Your task to perform on an android device: turn on notifications settings in the gmail app Image 0: 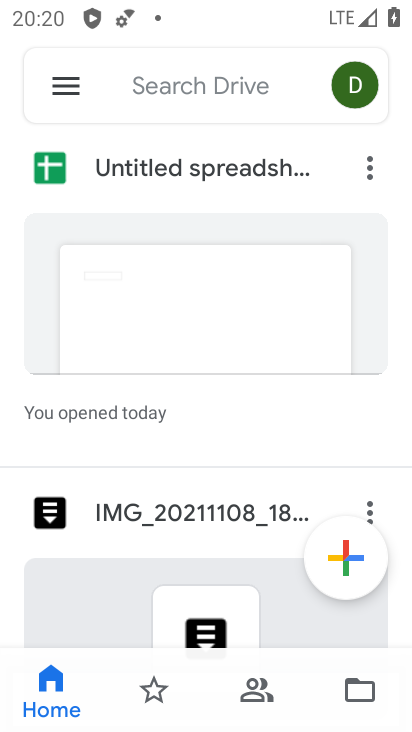
Step 0: drag from (201, 602) to (218, 251)
Your task to perform on an android device: turn on notifications settings in the gmail app Image 1: 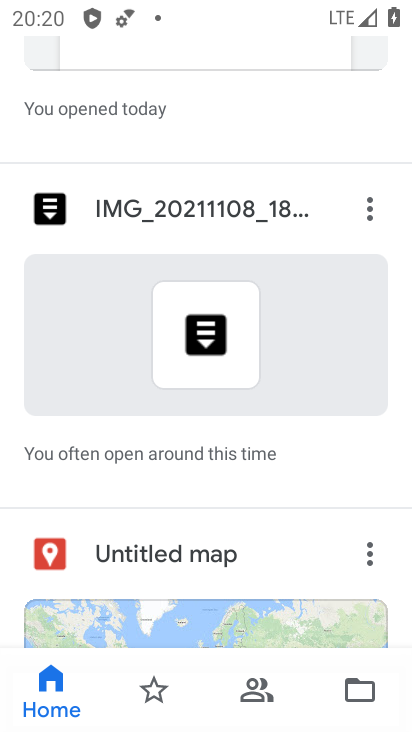
Step 1: press home button
Your task to perform on an android device: turn on notifications settings in the gmail app Image 2: 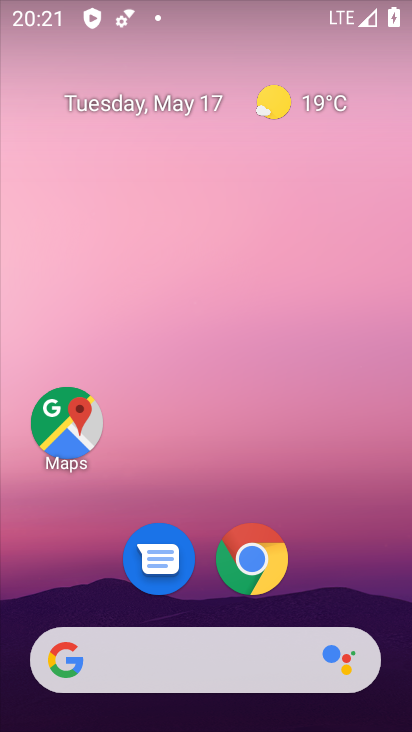
Step 2: drag from (228, 589) to (254, 315)
Your task to perform on an android device: turn on notifications settings in the gmail app Image 3: 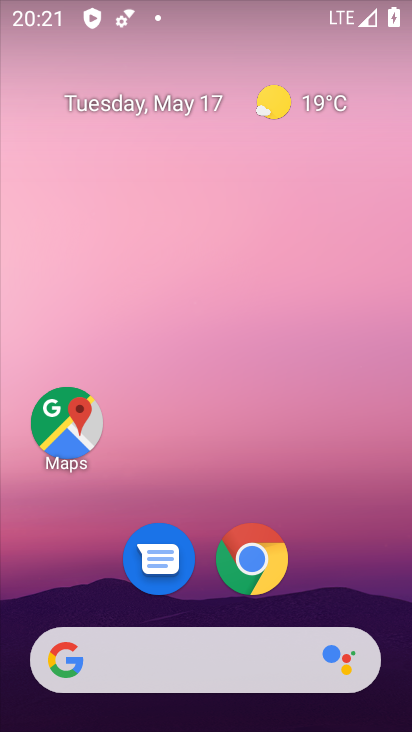
Step 3: drag from (214, 586) to (186, 283)
Your task to perform on an android device: turn on notifications settings in the gmail app Image 4: 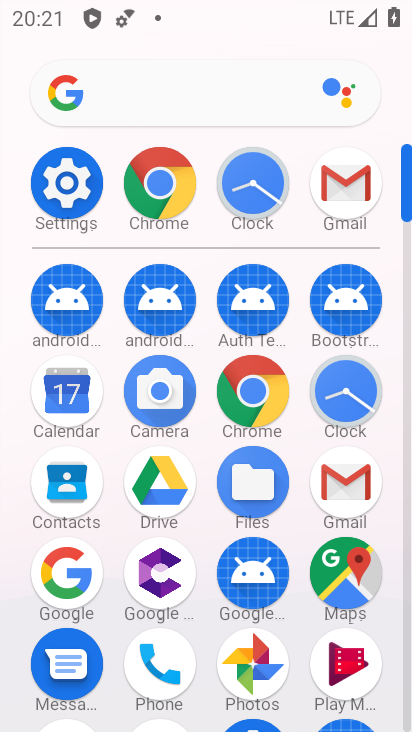
Step 4: click (372, 487)
Your task to perform on an android device: turn on notifications settings in the gmail app Image 5: 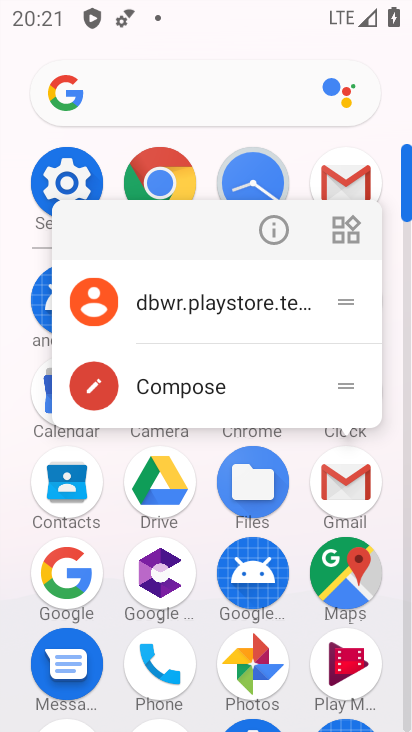
Step 5: click (221, 291)
Your task to perform on an android device: turn on notifications settings in the gmail app Image 6: 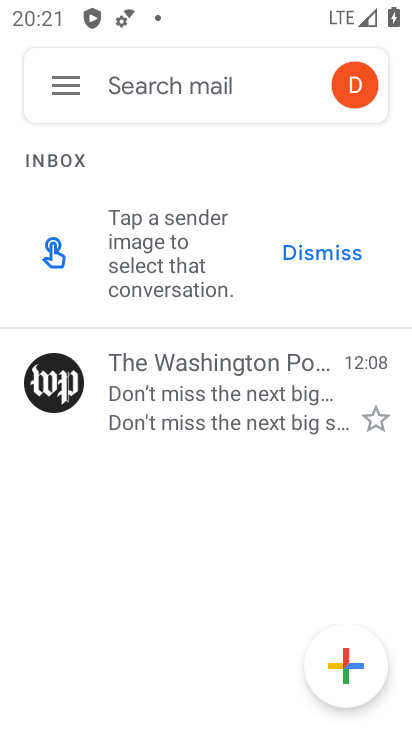
Step 6: click (53, 89)
Your task to perform on an android device: turn on notifications settings in the gmail app Image 7: 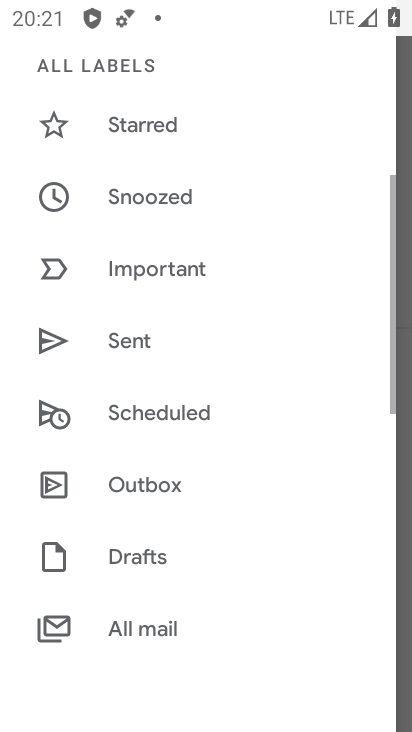
Step 7: drag from (186, 618) to (232, 142)
Your task to perform on an android device: turn on notifications settings in the gmail app Image 8: 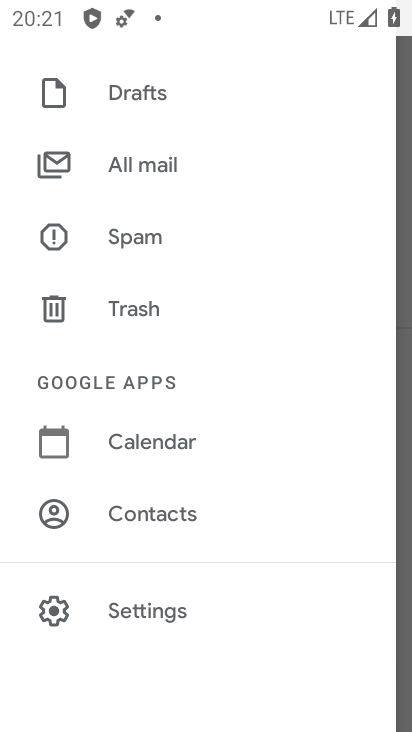
Step 8: click (174, 600)
Your task to perform on an android device: turn on notifications settings in the gmail app Image 9: 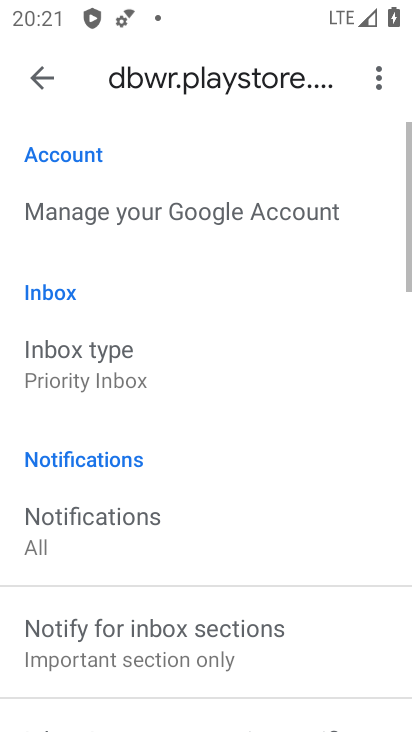
Step 9: drag from (193, 557) to (211, 319)
Your task to perform on an android device: turn on notifications settings in the gmail app Image 10: 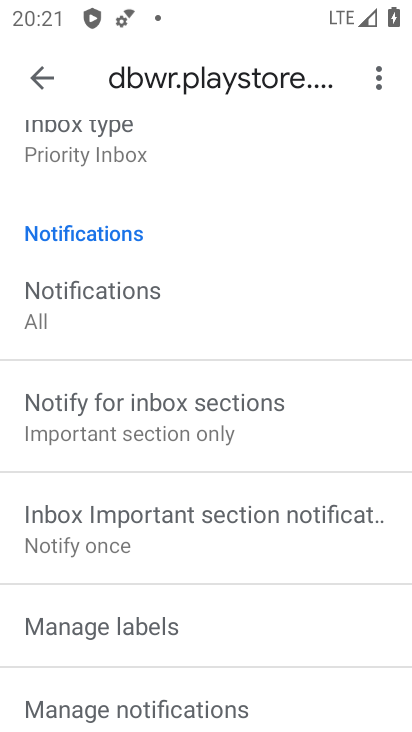
Step 10: drag from (209, 597) to (246, 232)
Your task to perform on an android device: turn on notifications settings in the gmail app Image 11: 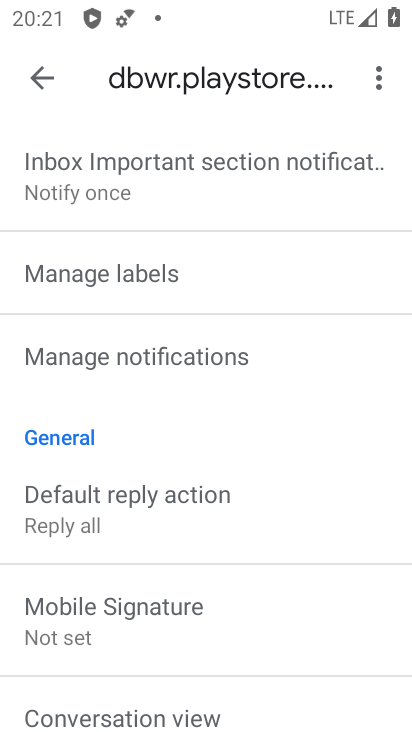
Step 11: click (104, 353)
Your task to perform on an android device: turn on notifications settings in the gmail app Image 12: 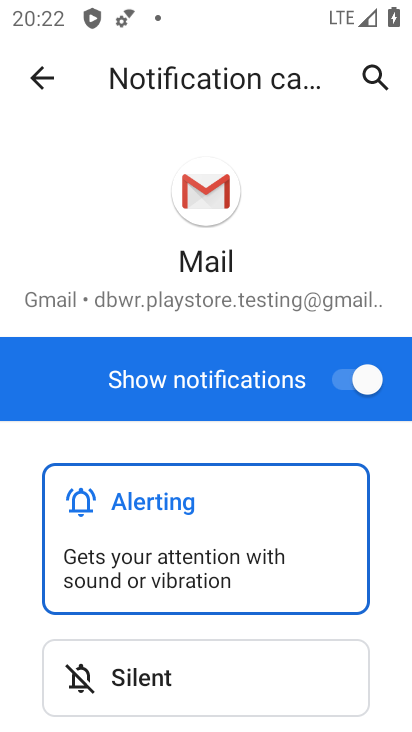
Step 12: task complete